Your task to perform on an android device: Search for good Italian restaurants Image 0: 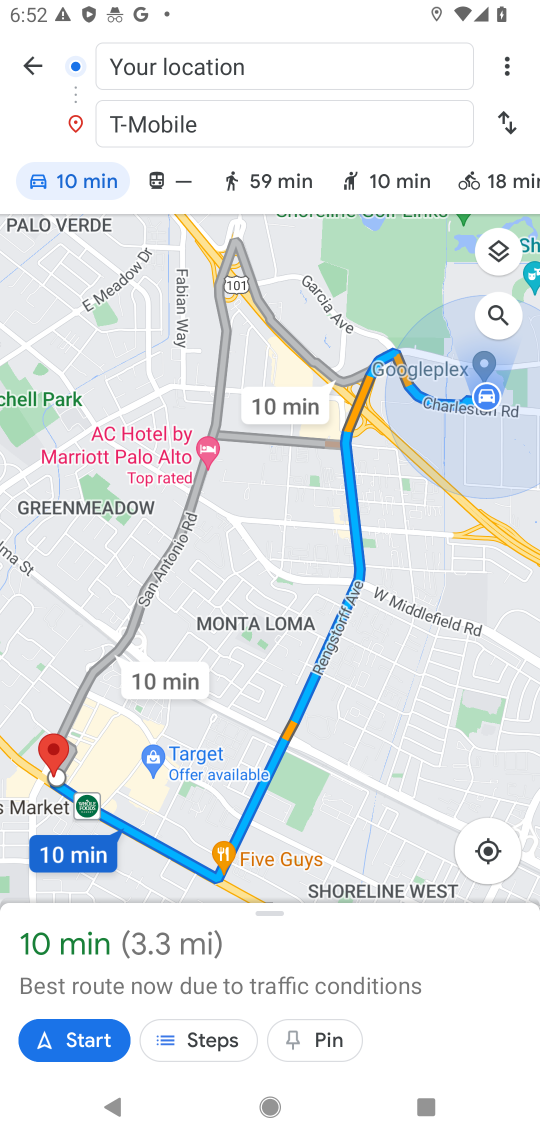
Step 0: press home button
Your task to perform on an android device: Search for good Italian restaurants Image 1: 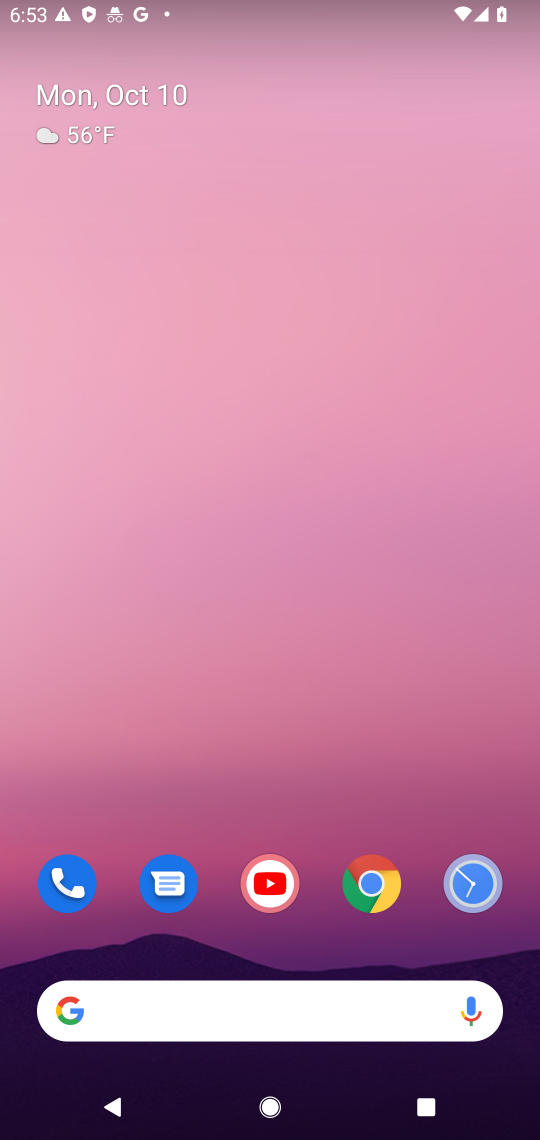
Step 1: drag from (303, 29) to (258, 3)
Your task to perform on an android device: Search for good Italian restaurants Image 2: 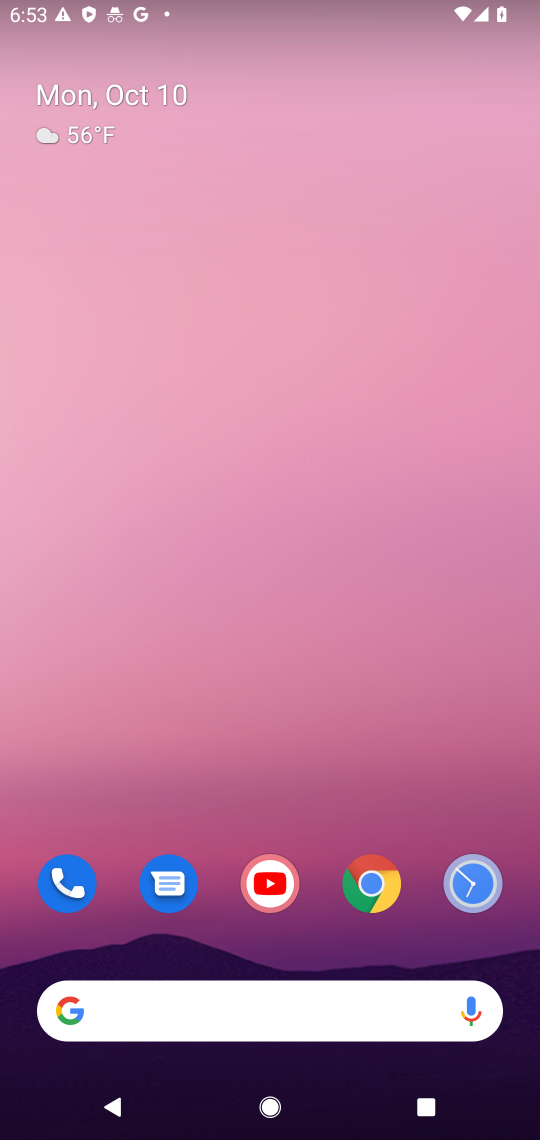
Step 2: drag from (288, 1073) to (252, 220)
Your task to perform on an android device: Search for good Italian restaurants Image 3: 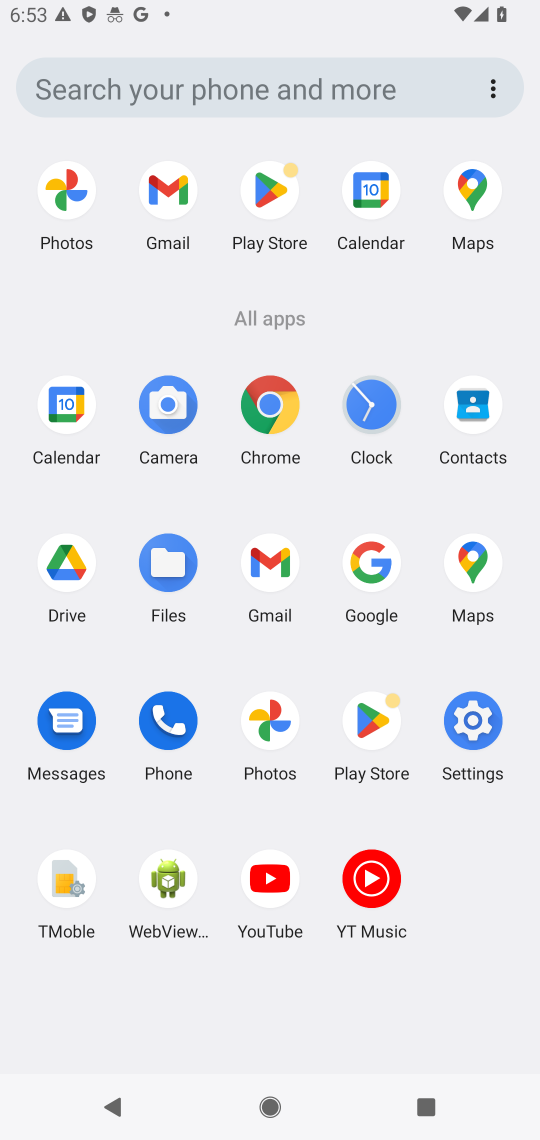
Step 3: click (384, 572)
Your task to perform on an android device: Search for good Italian restaurants Image 4: 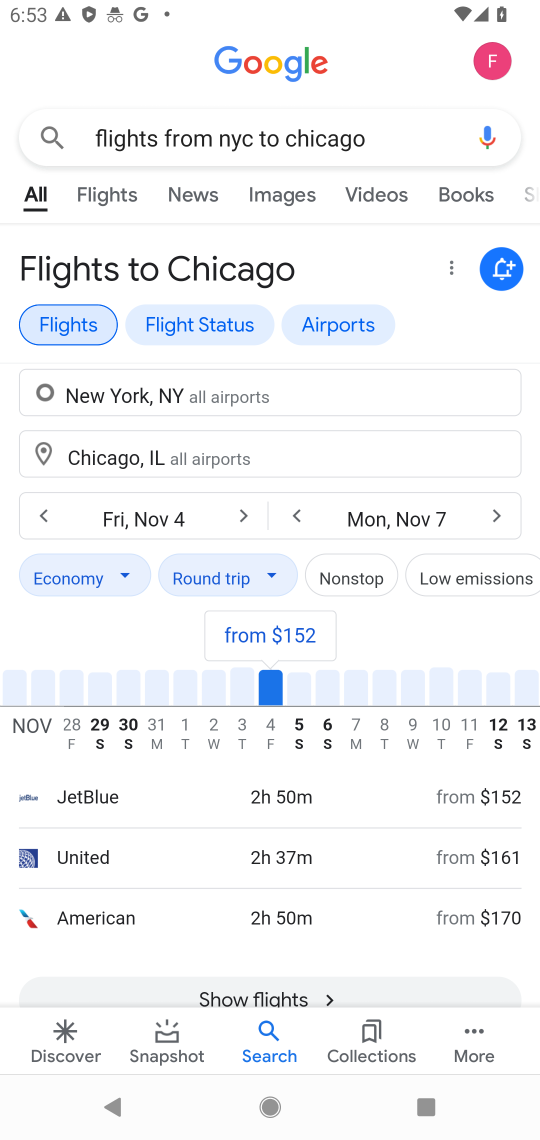
Step 4: click (363, 139)
Your task to perform on an android device: Search for good Italian restaurants Image 5: 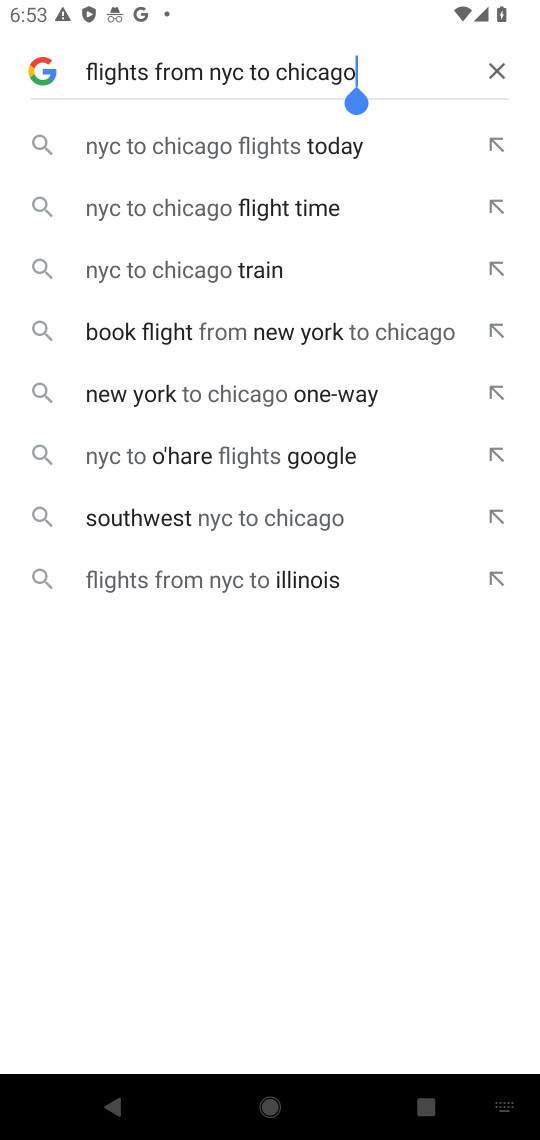
Step 5: click (498, 74)
Your task to perform on an android device: Search for good Italian restaurants Image 6: 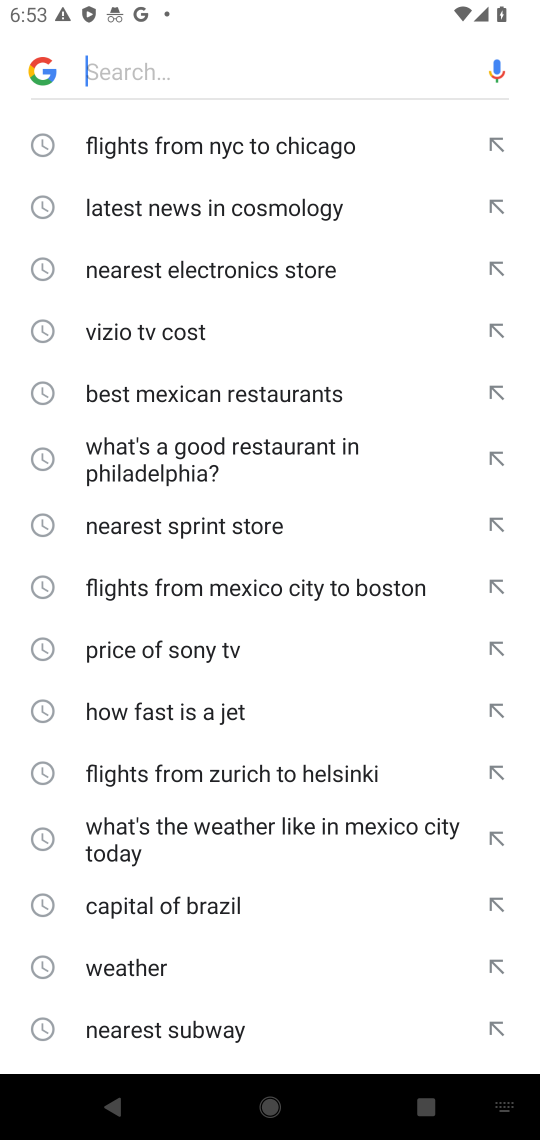
Step 6: type "good Italian restaurants"
Your task to perform on an android device: Search for good Italian restaurants Image 7: 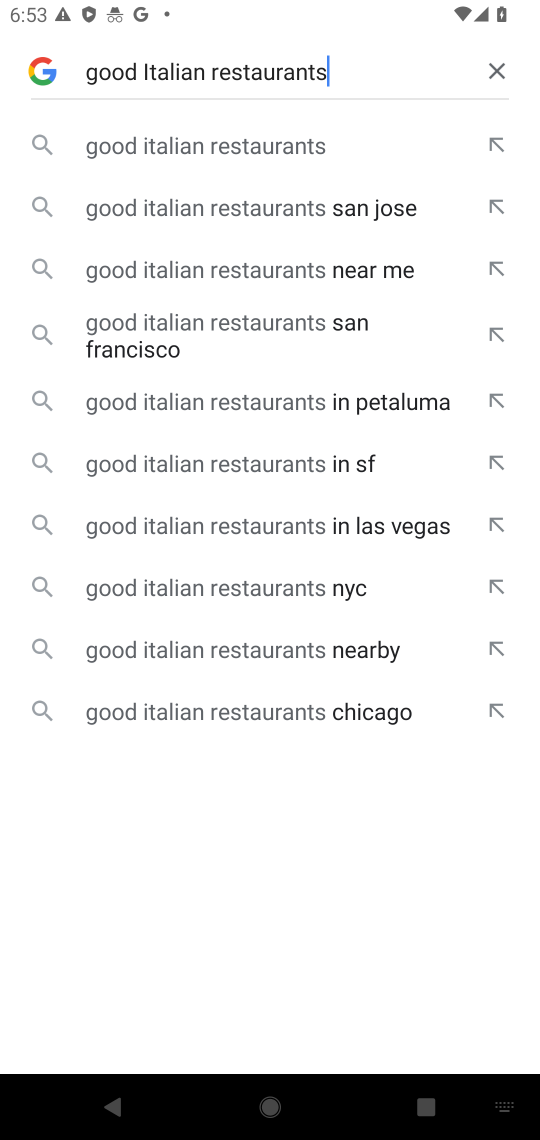
Step 7: click (347, 147)
Your task to perform on an android device: Search for good Italian restaurants Image 8: 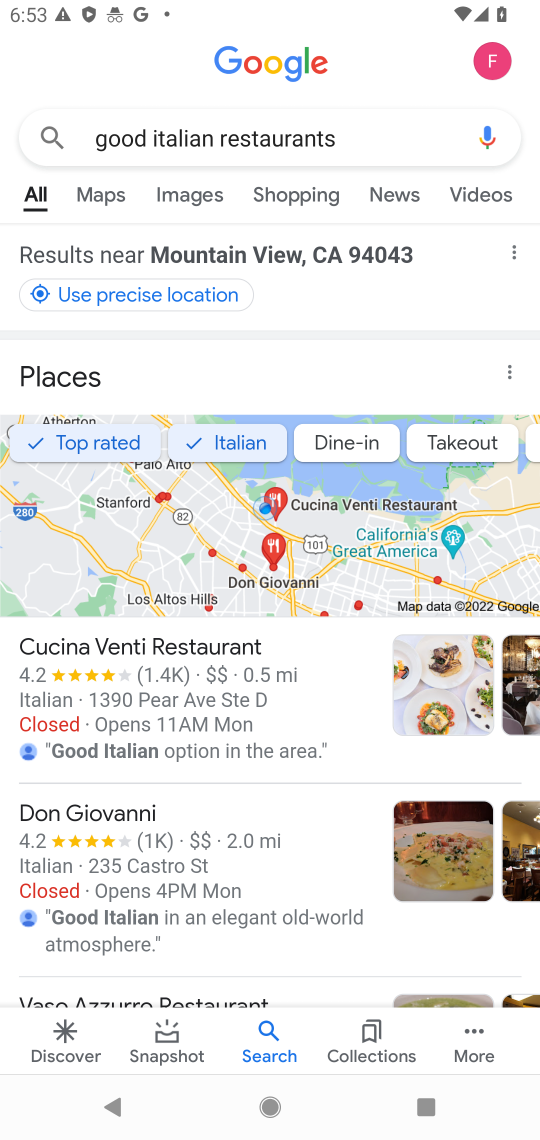
Step 8: task complete